Your task to perform on an android device: open a new tab in the chrome app Image 0: 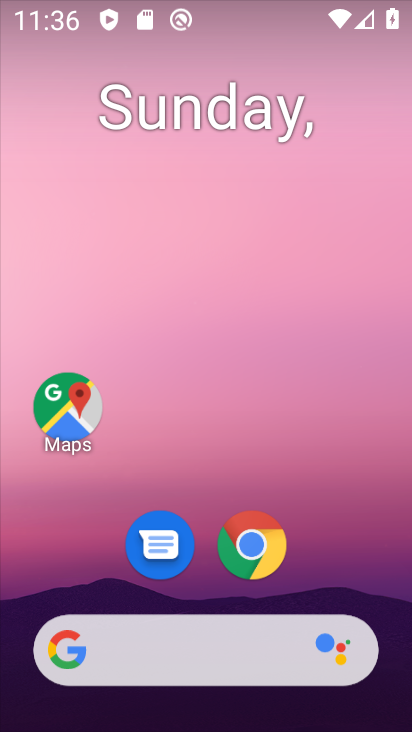
Step 0: drag from (383, 586) to (369, 105)
Your task to perform on an android device: open a new tab in the chrome app Image 1: 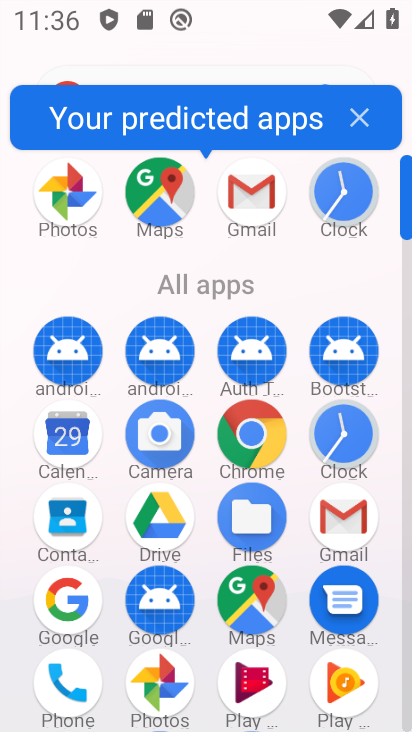
Step 1: drag from (390, 528) to (380, 290)
Your task to perform on an android device: open a new tab in the chrome app Image 2: 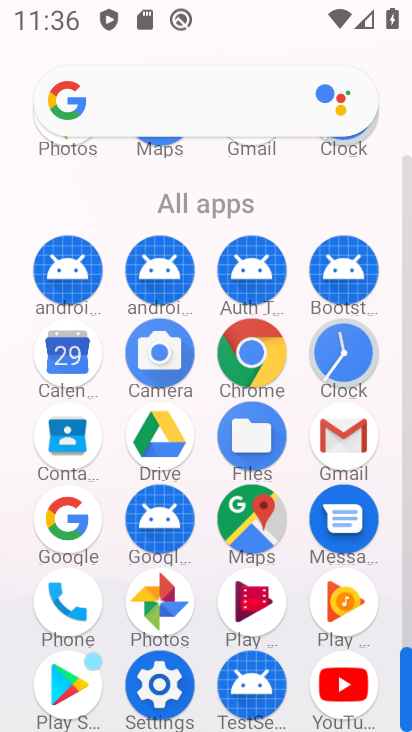
Step 2: click (254, 359)
Your task to perform on an android device: open a new tab in the chrome app Image 3: 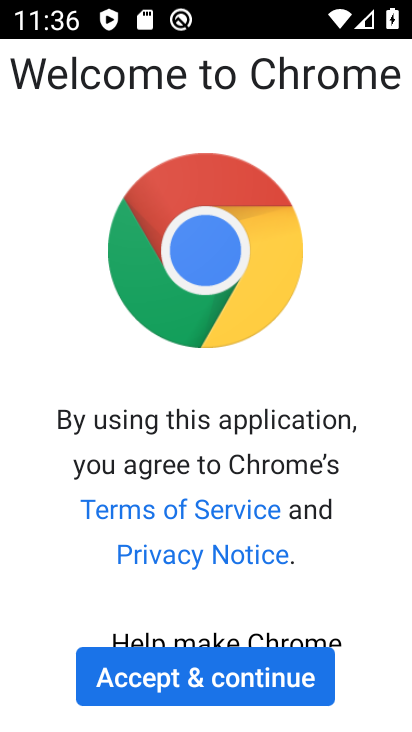
Step 3: click (202, 675)
Your task to perform on an android device: open a new tab in the chrome app Image 4: 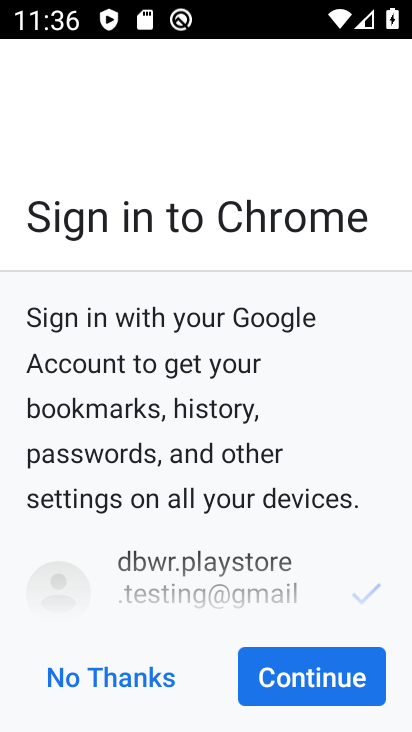
Step 4: click (262, 683)
Your task to perform on an android device: open a new tab in the chrome app Image 5: 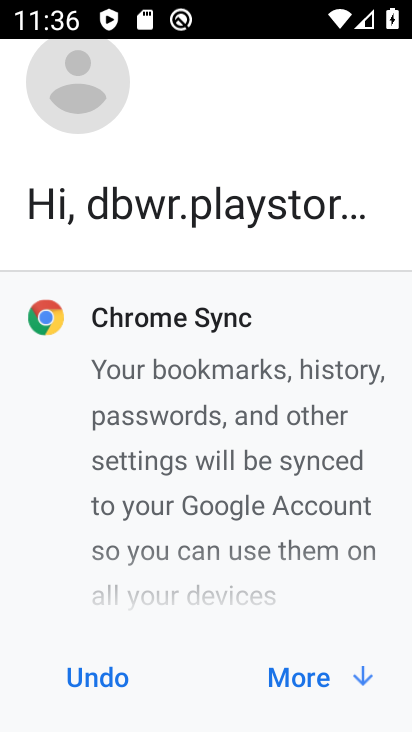
Step 5: click (287, 686)
Your task to perform on an android device: open a new tab in the chrome app Image 6: 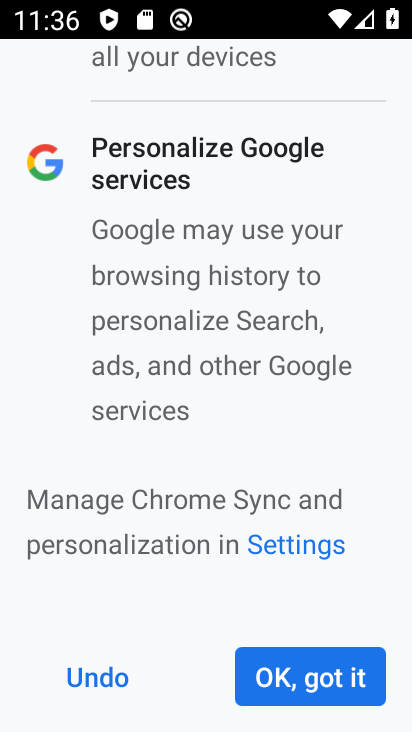
Step 6: click (287, 686)
Your task to perform on an android device: open a new tab in the chrome app Image 7: 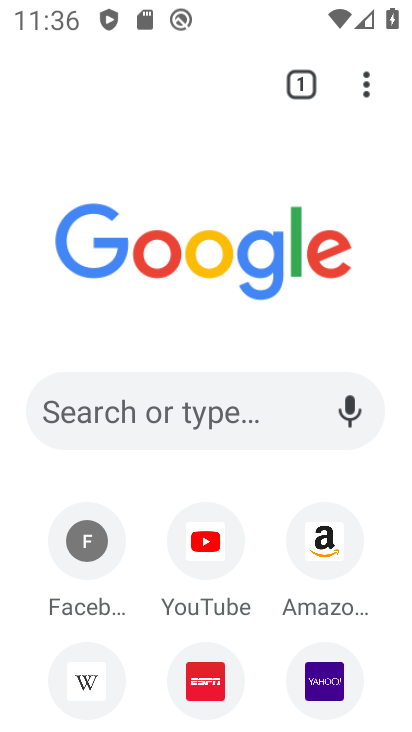
Step 7: click (369, 89)
Your task to perform on an android device: open a new tab in the chrome app Image 8: 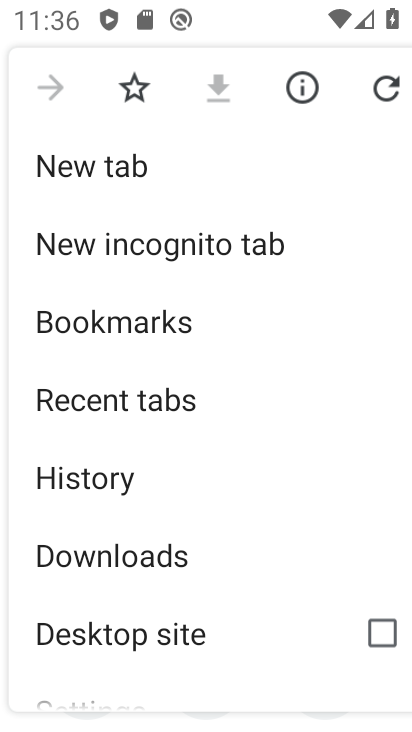
Step 8: click (133, 158)
Your task to perform on an android device: open a new tab in the chrome app Image 9: 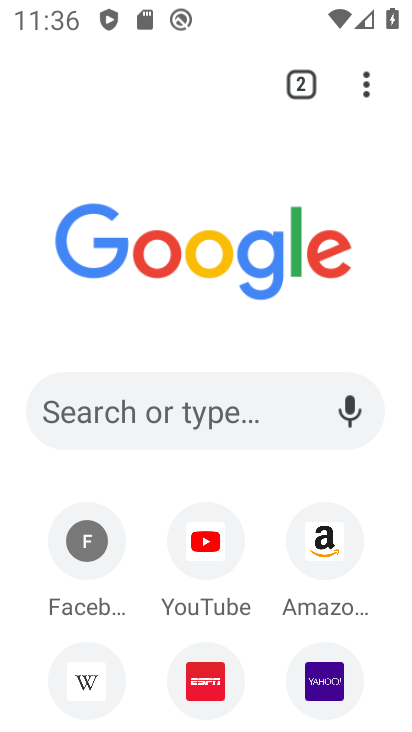
Step 9: task complete